Your task to perform on an android device: open device folders in google photos Image 0: 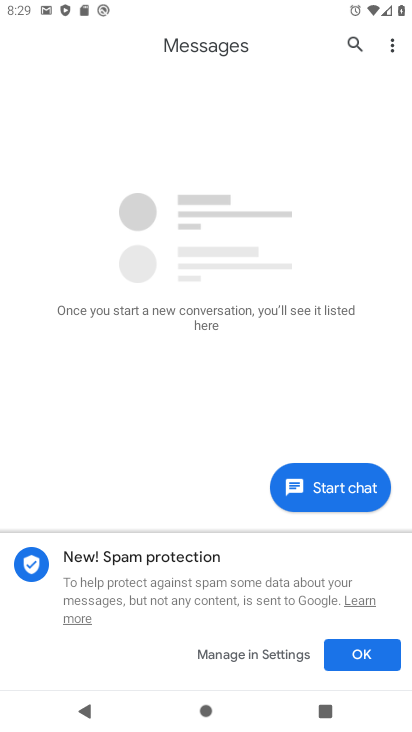
Step 0: press home button
Your task to perform on an android device: open device folders in google photos Image 1: 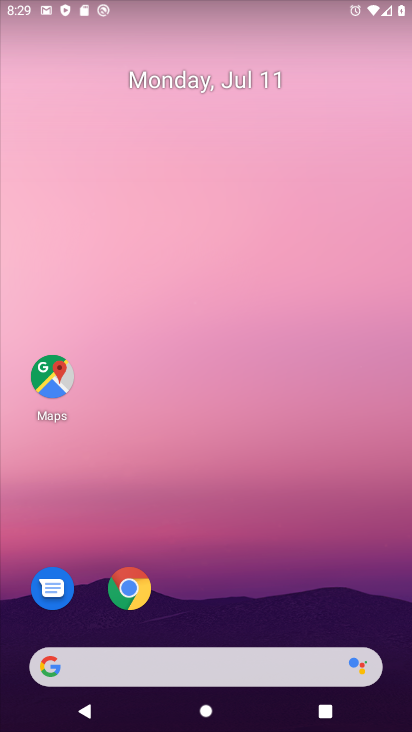
Step 1: drag from (175, 647) to (402, 117)
Your task to perform on an android device: open device folders in google photos Image 2: 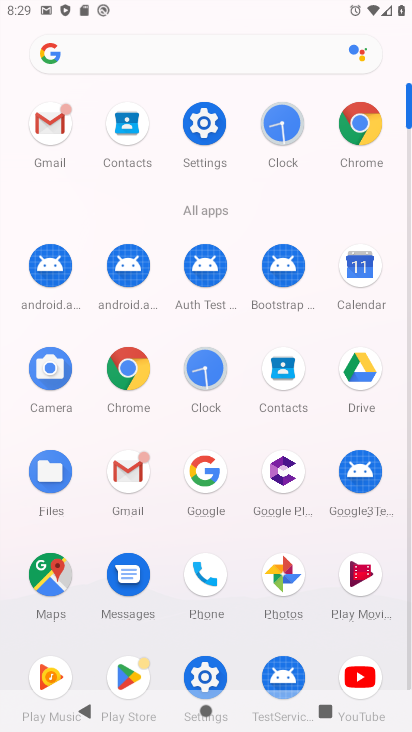
Step 2: click (282, 577)
Your task to perform on an android device: open device folders in google photos Image 3: 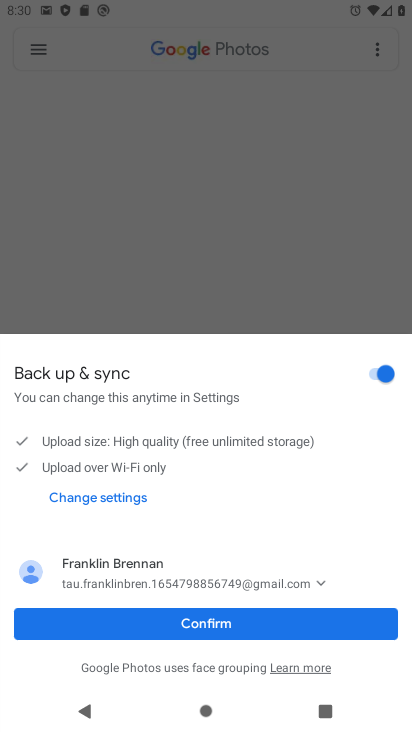
Step 3: click (230, 634)
Your task to perform on an android device: open device folders in google photos Image 4: 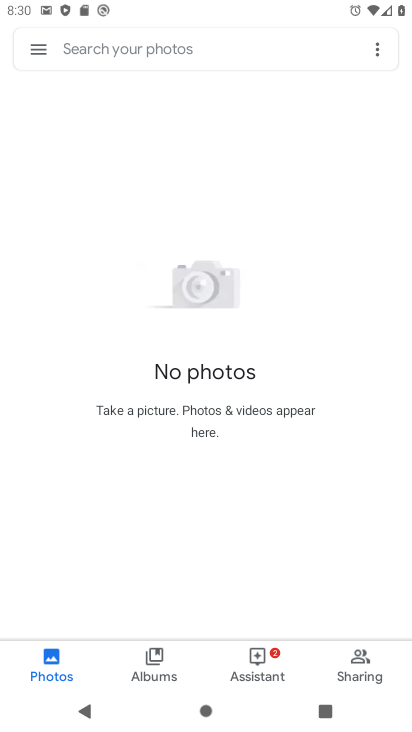
Step 4: click (37, 45)
Your task to perform on an android device: open device folders in google photos Image 5: 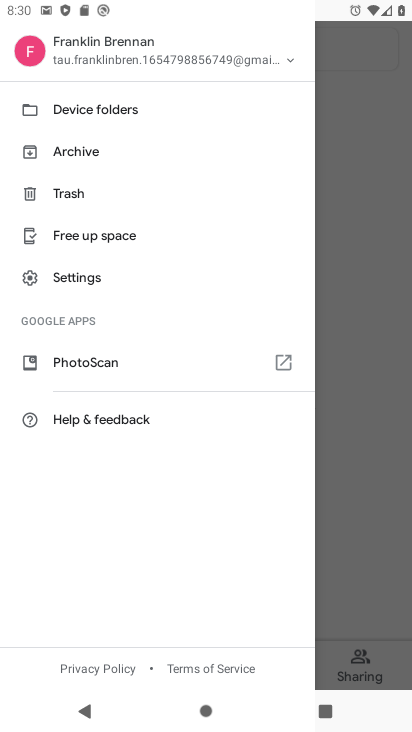
Step 5: click (102, 106)
Your task to perform on an android device: open device folders in google photos Image 6: 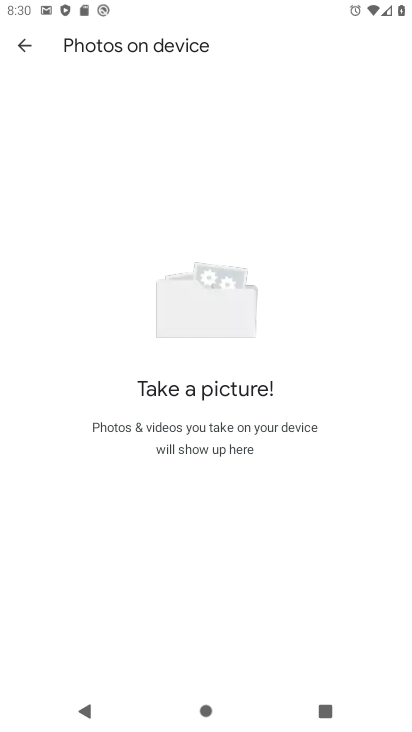
Step 6: task complete